Your task to perform on an android device: Open Chrome and go to settings Image 0: 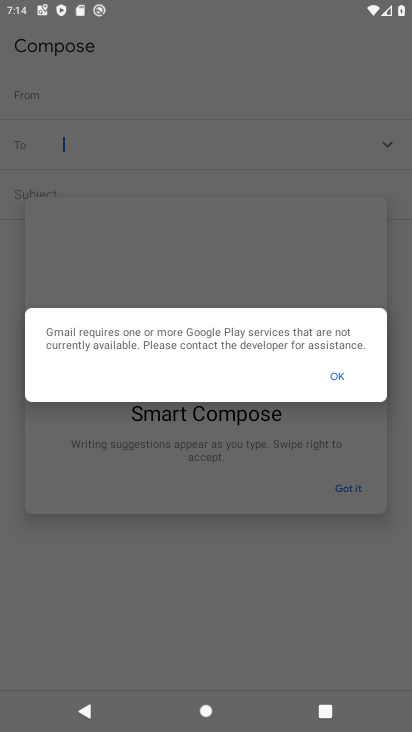
Step 0: drag from (293, 605) to (294, 100)
Your task to perform on an android device: Open Chrome and go to settings Image 1: 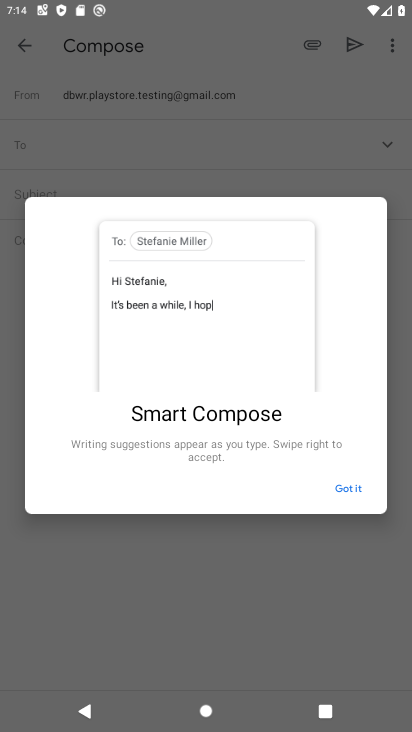
Step 1: press home button
Your task to perform on an android device: Open Chrome and go to settings Image 2: 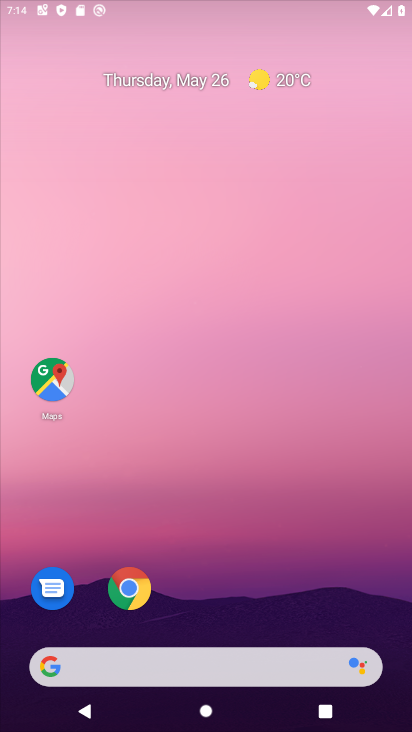
Step 2: drag from (361, 626) to (180, 9)
Your task to perform on an android device: Open Chrome and go to settings Image 3: 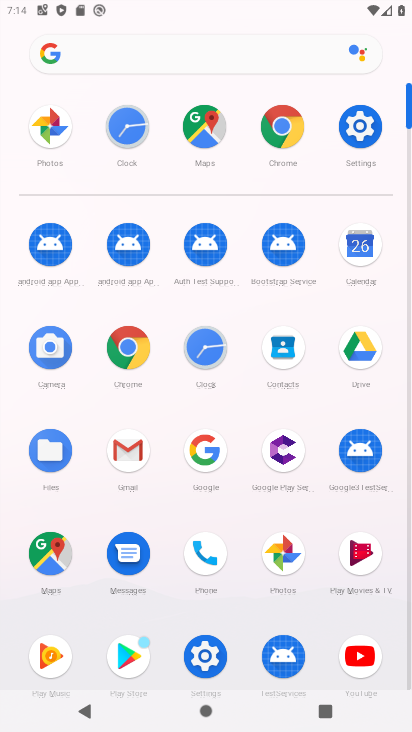
Step 3: click (131, 372)
Your task to perform on an android device: Open Chrome and go to settings Image 4: 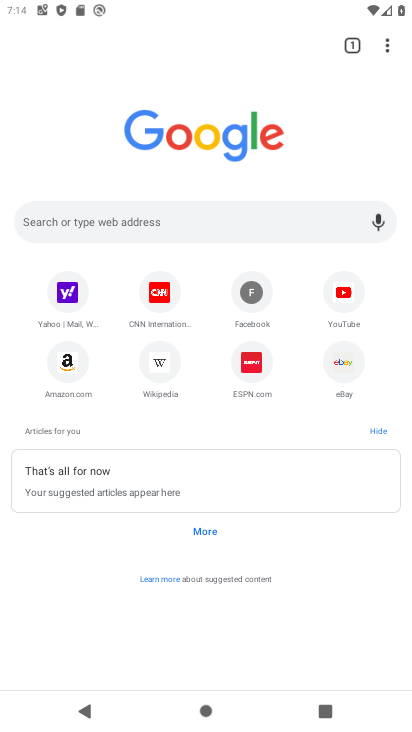
Step 4: click (388, 32)
Your task to perform on an android device: Open Chrome and go to settings Image 5: 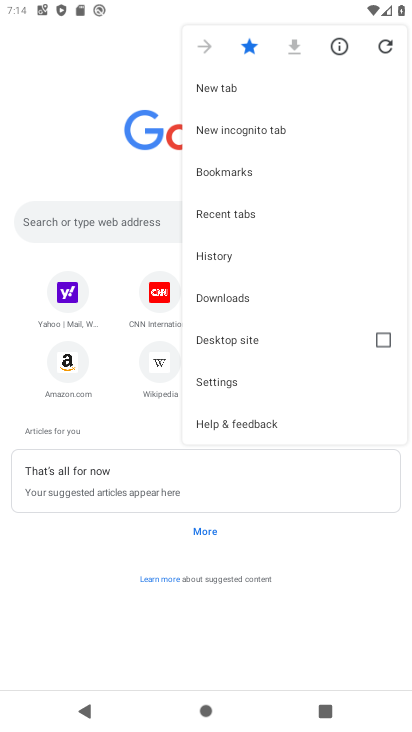
Step 5: click (208, 373)
Your task to perform on an android device: Open Chrome and go to settings Image 6: 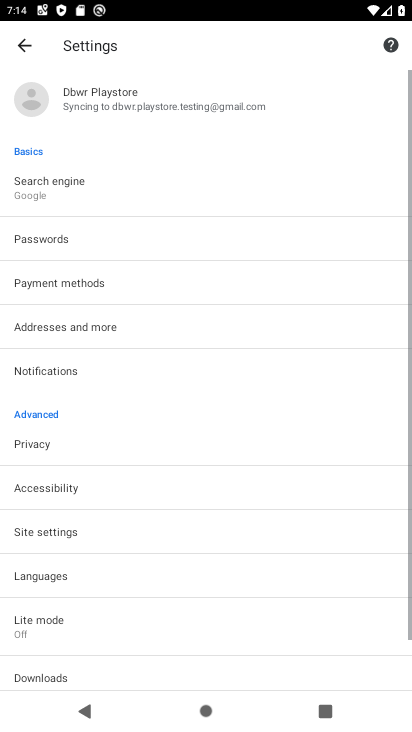
Step 6: task complete